Your task to perform on an android device: Show me productivity apps on the Play Store Image 0: 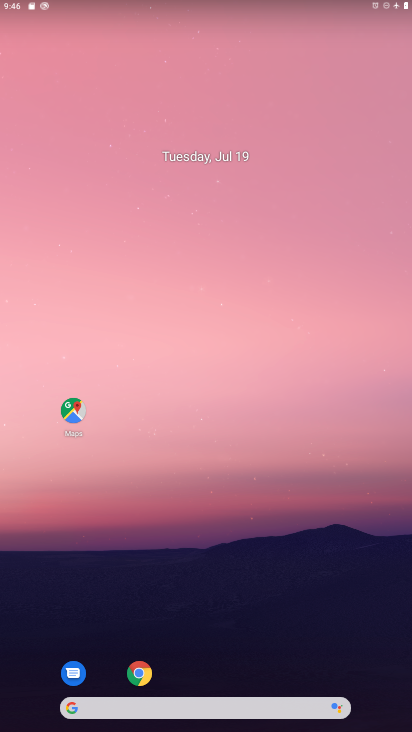
Step 0: drag from (376, 671) to (332, 279)
Your task to perform on an android device: Show me productivity apps on the Play Store Image 1: 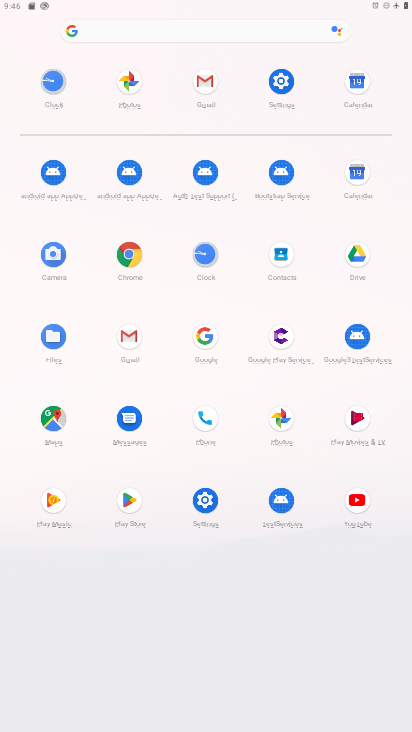
Step 1: click (127, 498)
Your task to perform on an android device: Show me productivity apps on the Play Store Image 2: 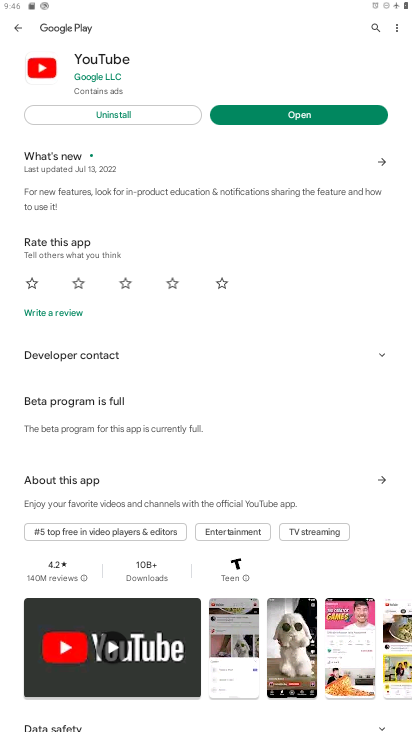
Step 2: press back button
Your task to perform on an android device: Show me productivity apps on the Play Store Image 3: 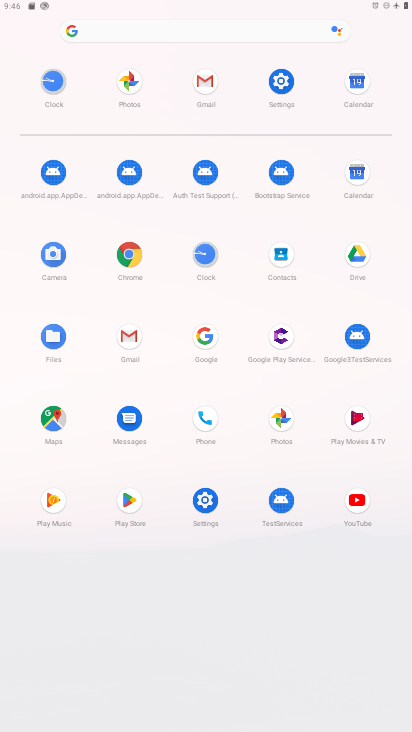
Step 3: click (129, 499)
Your task to perform on an android device: Show me productivity apps on the Play Store Image 4: 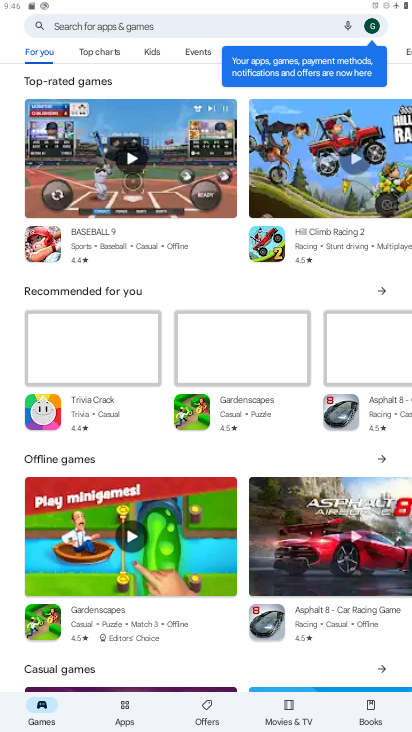
Step 4: click (123, 706)
Your task to perform on an android device: Show me productivity apps on the Play Store Image 5: 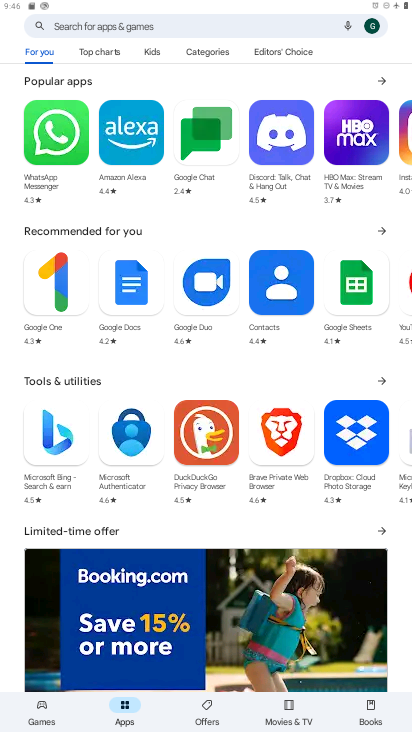
Step 5: click (200, 50)
Your task to perform on an android device: Show me productivity apps on the Play Store Image 6: 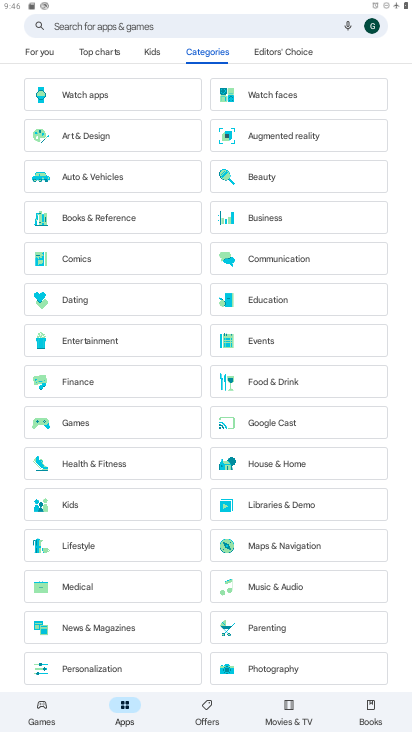
Step 6: drag from (203, 677) to (193, 447)
Your task to perform on an android device: Show me productivity apps on the Play Store Image 7: 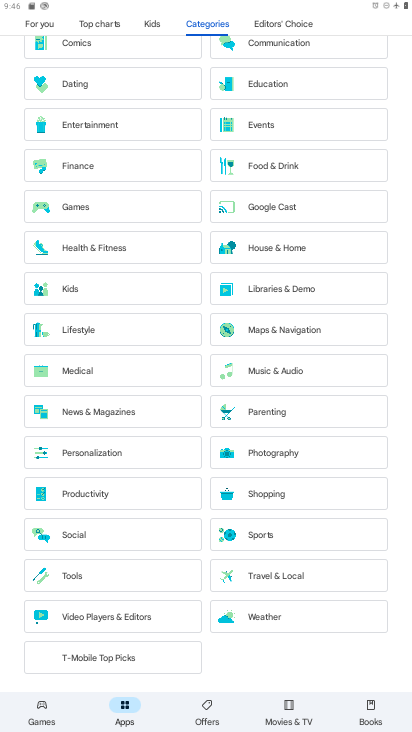
Step 7: click (92, 496)
Your task to perform on an android device: Show me productivity apps on the Play Store Image 8: 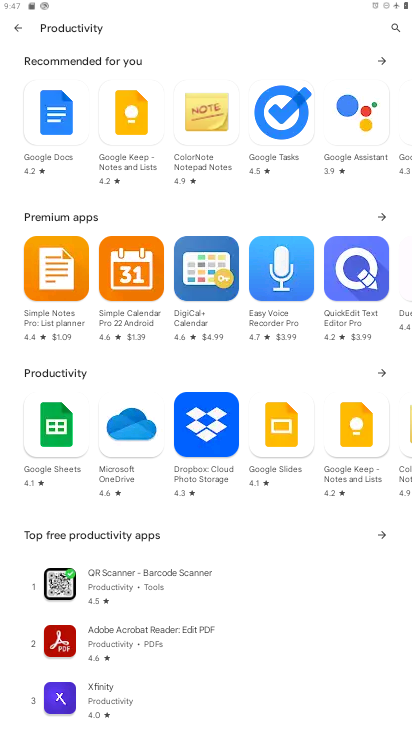
Step 8: click (383, 370)
Your task to perform on an android device: Show me productivity apps on the Play Store Image 9: 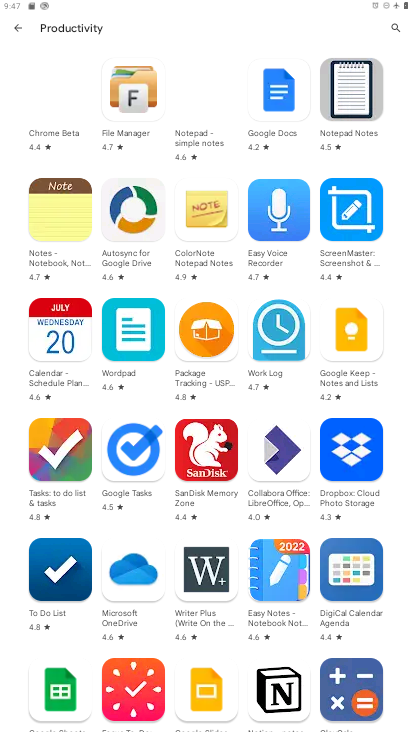
Step 9: task complete